Your task to perform on an android device: open wifi settings Image 0: 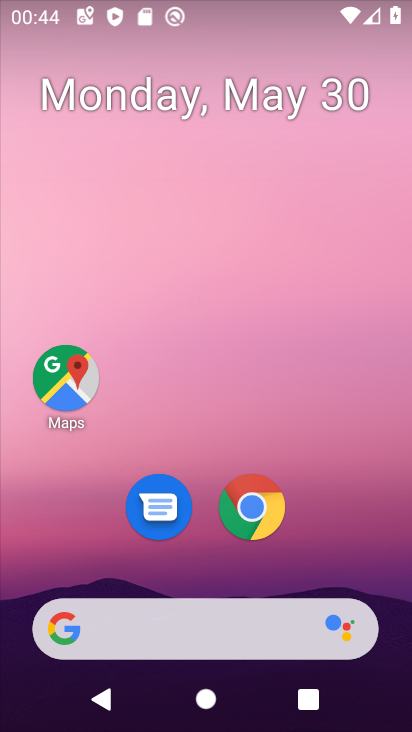
Step 0: drag from (308, 547) to (263, 223)
Your task to perform on an android device: open wifi settings Image 1: 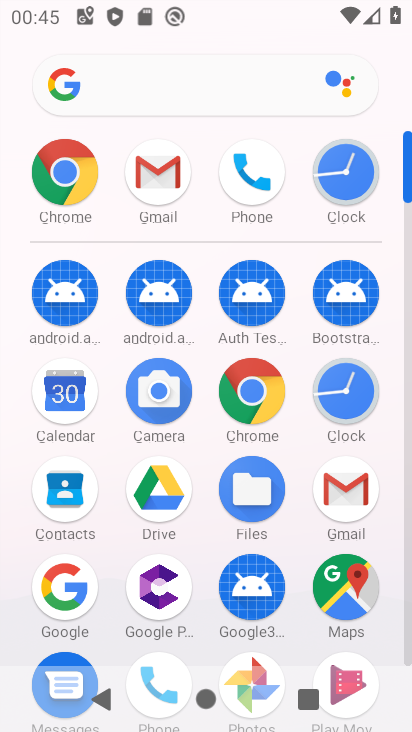
Step 1: drag from (282, 602) to (306, 273)
Your task to perform on an android device: open wifi settings Image 2: 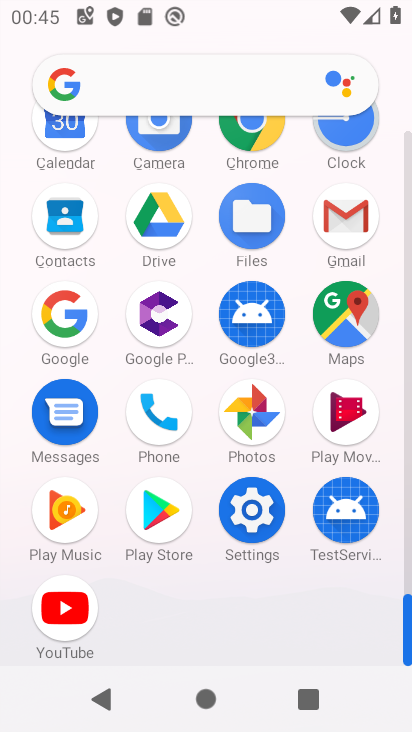
Step 2: click (257, 496)
Your task to perform on an android device: open wifi settings Image 3: 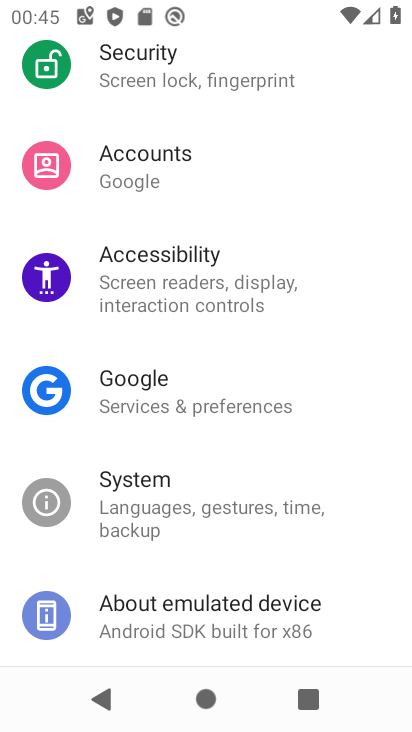
Step 3: drag from (228, 214) to (204, 566)
Your task to perform on an android device: open wifi settings Image 4: 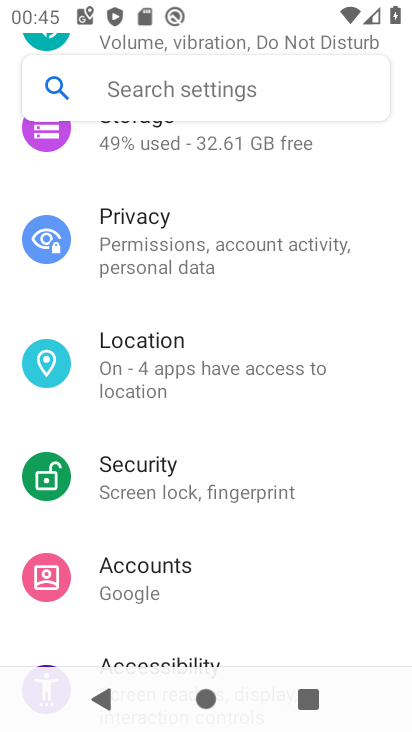
Step 4: drag from (219, 147) to (179, 540)
Your task to perform on an android device: open wifi settings Image 5: 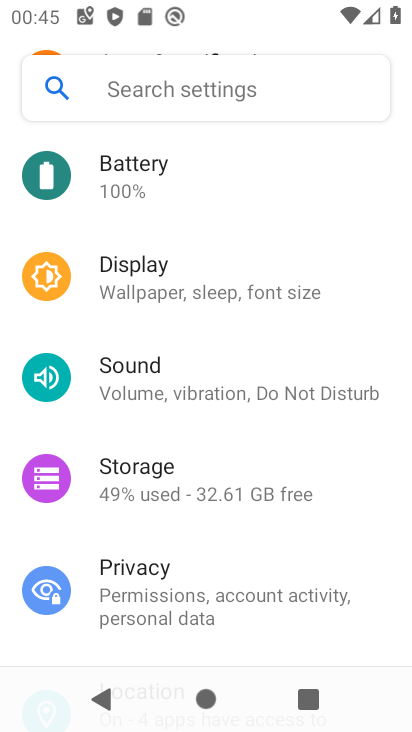
Step 5: drag from (154, 160) to (163, 568)
Your task to perform on an android device: open wifi settings Image 6: 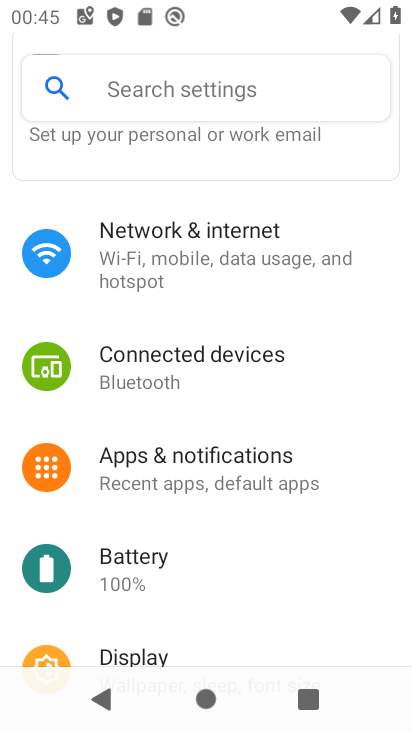
Step 6: click (162, 233)
Your task to perform on an android device: open wifi settings Image 7: 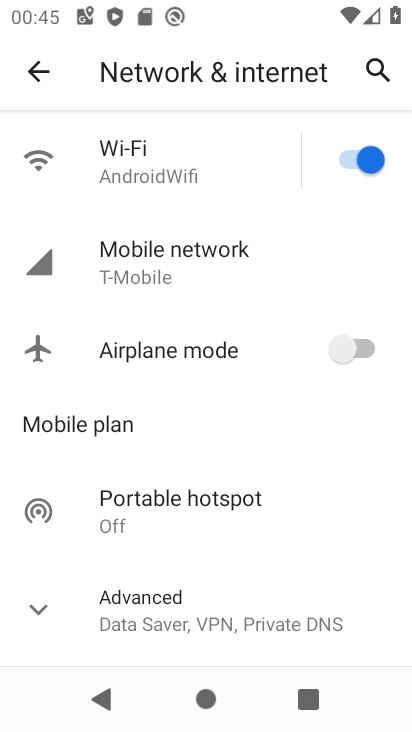
Step 7: task complete